Your task to perform on an android device: Go to eBay Image 0: 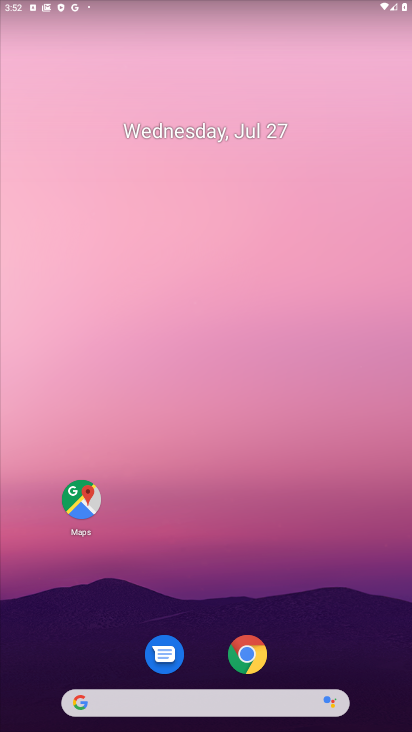
Step 0: press home button
Your task to perform on an android device: Go to eBay Image 1: 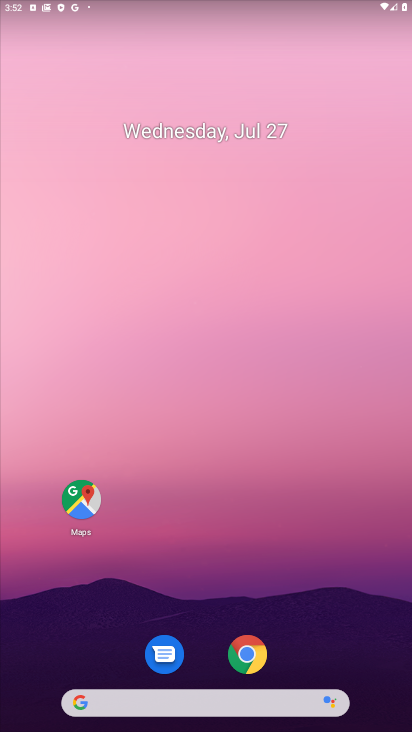
Step 1: drag from (187, 687) to (224, 221)
Your task to perform on an android device: Go to eBay Image 2: 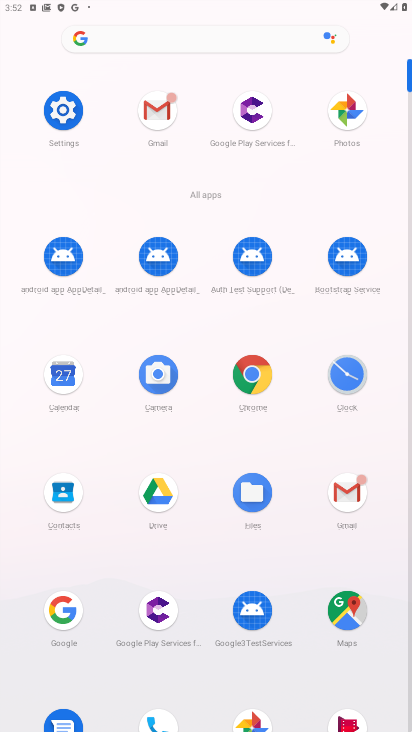
Step 2: click (56, 606)
Your task to perform on an android device: Go to eBay Image 3: 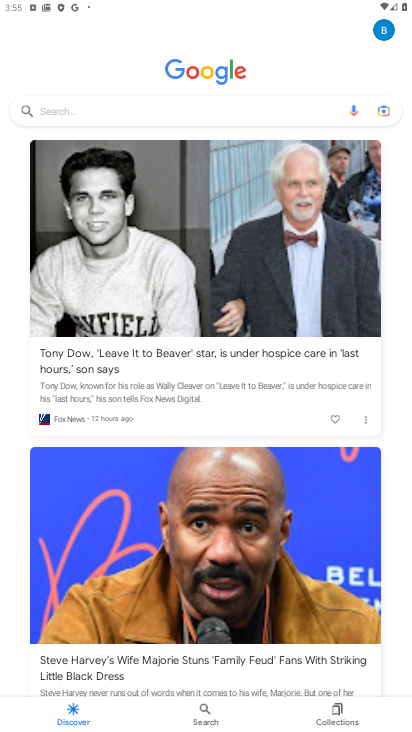
Step 3: click (179, 102)
Your task to perform on an android device: Go to eBay Image 4: 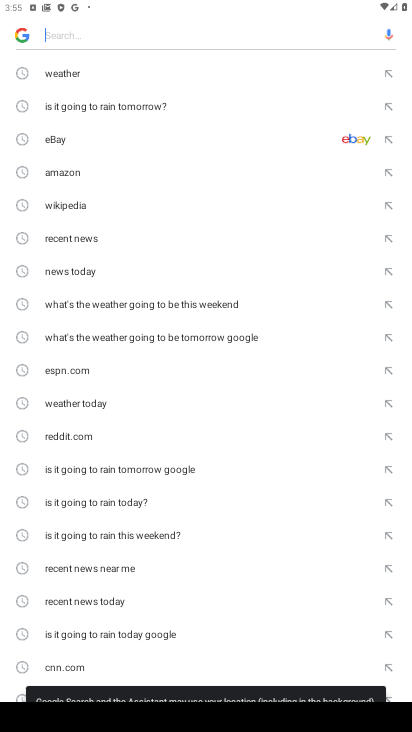
Step 4: click (56, 137)
Your task to perform on an android device: Go to eBay Image 5: 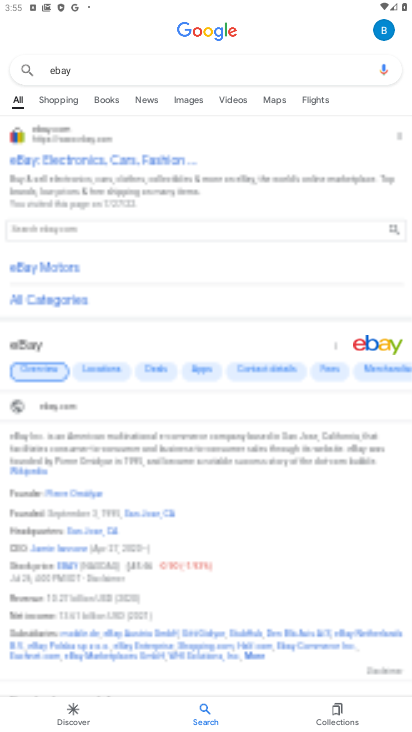
Step 5: click (136, 161)
Your task to perform on an android device: Go to eBay Image 6: 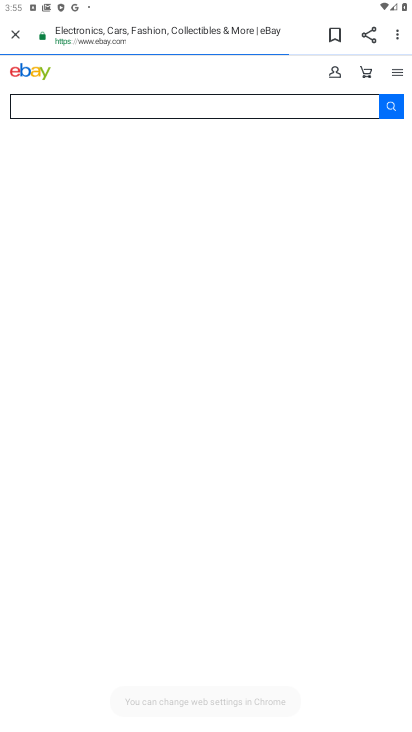
Step 6: task complete